Your task to perform on an android device: Open calendar and show me the second week of next month Image 0: 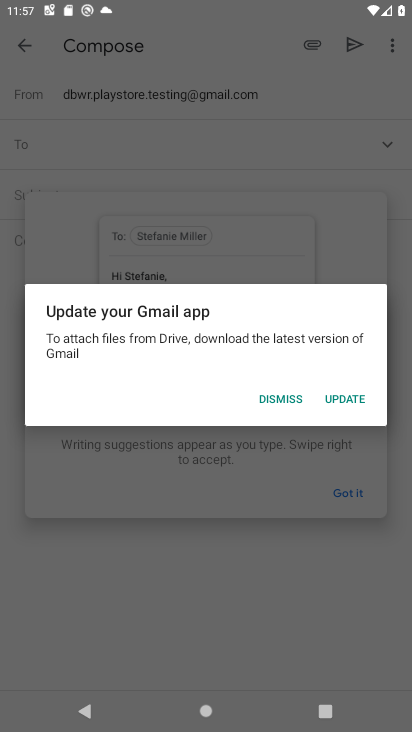
Step 0: press home button
Your task to perform on an android device: Open calendar and show me the second week of next month Image 1: 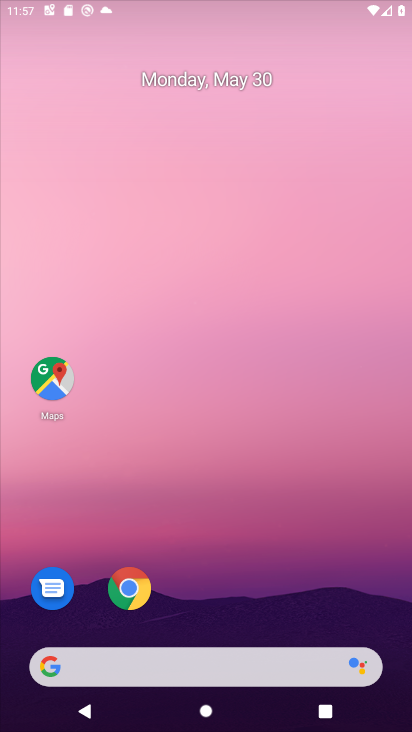
Step 1: drag from (363, 623) to (357, 78)
Your task to perform on an android device: Open calendar and show me the second week of next month Image 2: 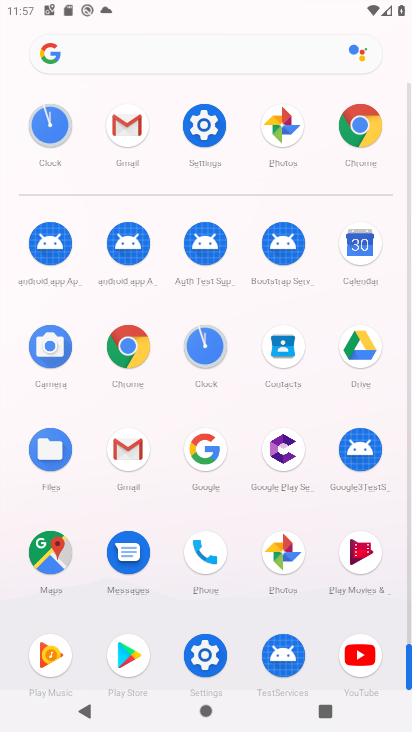
Step 2: click (362, 238)
Your task to perform on an android device: Open calendar and show me the second week of next month Image 3: 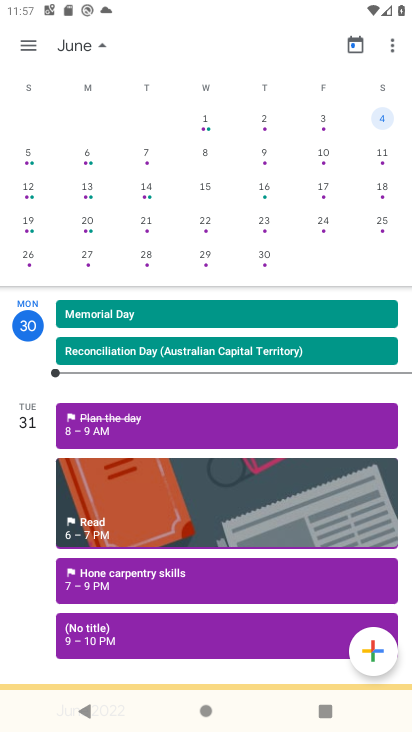
Step 3: click (265, 143)
Your task to perform on an android device: Open calendar and show me the second week of next month Image 4: 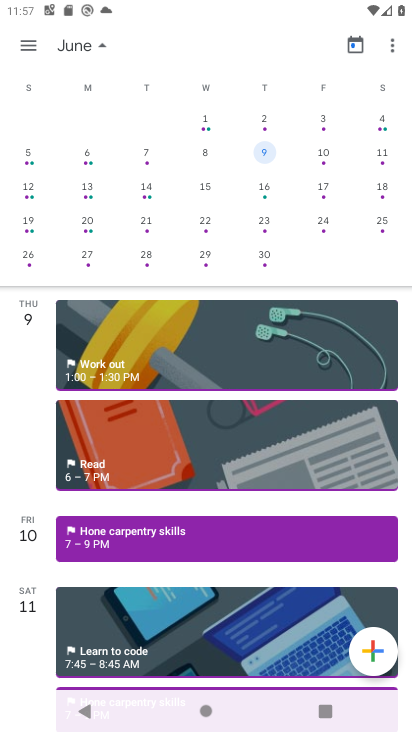
Step 4: click (18, 47)
Your task to perform on an android device: Open calendar and show me the second week of next month Image 5: 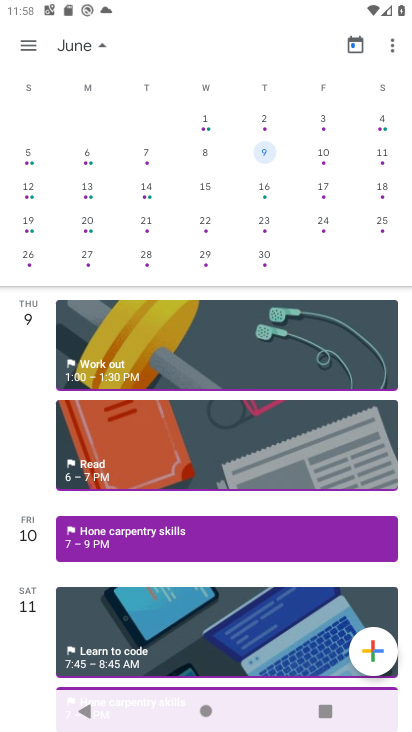
Step 5: click (28, 41)
Your task to perform on an android device: Open calendar and show me the second week of next month Image 6: 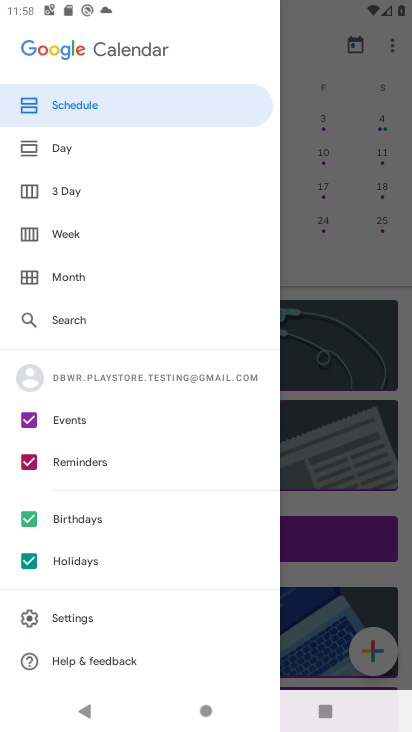
Step 6: click (76, 234)
Your task to perform on an android device: Open calendar and show me the second week of next month Image 7: 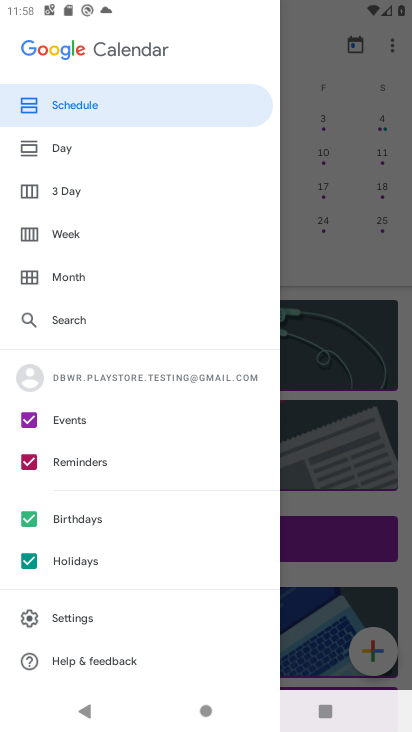
Step 7: task complete